Your task to perform on an android device: Go to accessibility settings Image 0: 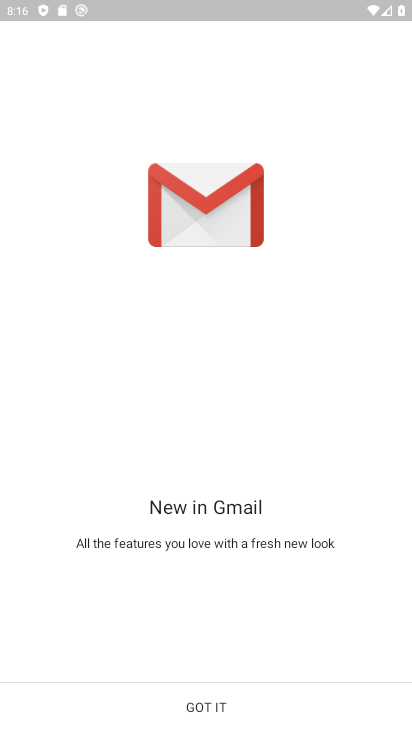
Step 0: press home button
Your task to perform on an android device: Go to accessibility settings Image 1: 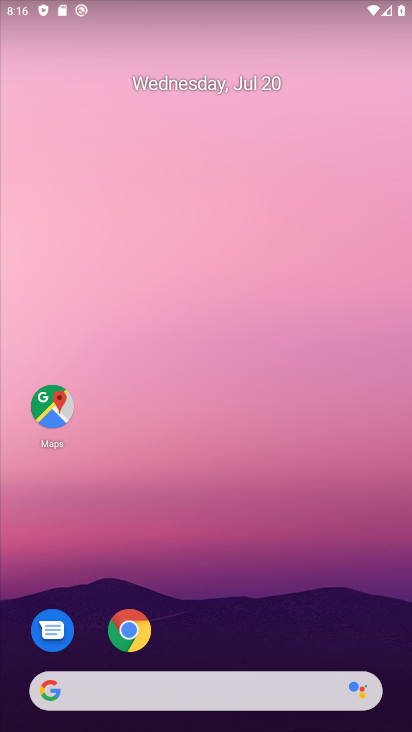
Step 1: drag from (391, 643) to (306, 96)
Your task to perform on an android device: Go to accessibility settings Image 2: 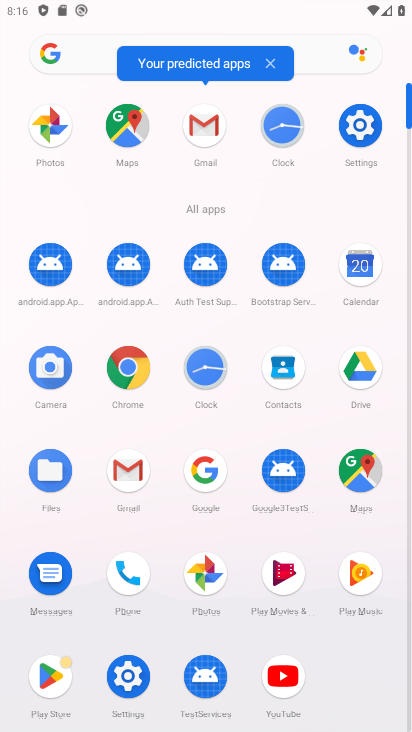
Step 2: click (131, 678)
Your task to perform on an android device: Go to accessibility settings Image 3: 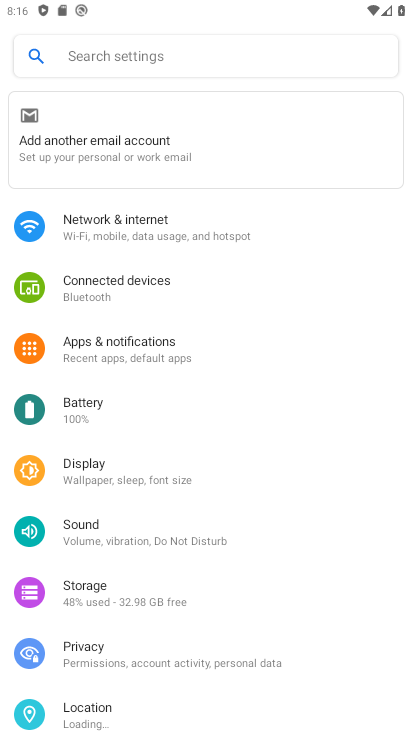
Step 3: drag from (335, 685) to (301, 239)
Your task to perform on an android device: Go to accessibility settings Image 4: 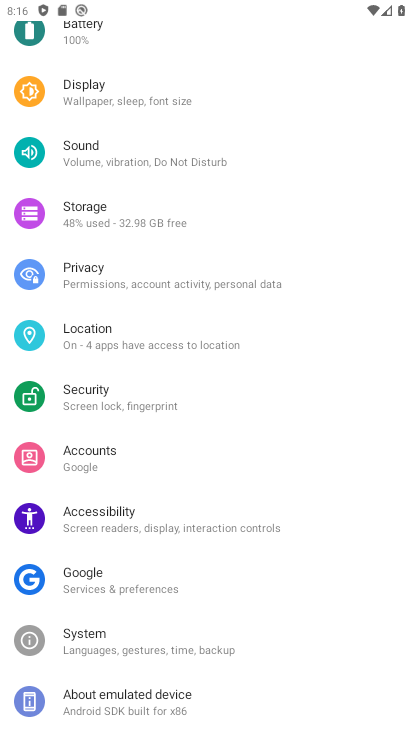
Step 4: click (99, 519)
Your task to perform on an android device: Go to accessibility settings Image 5: 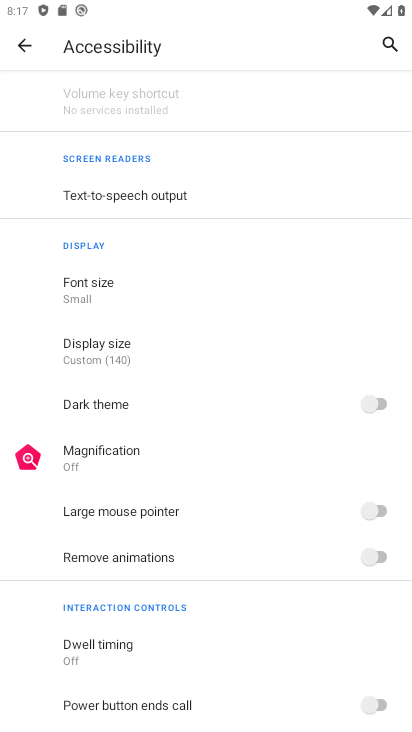
Step 5: task complete